Your task to perform on an android device: toggle improve location accuracy Image 0: 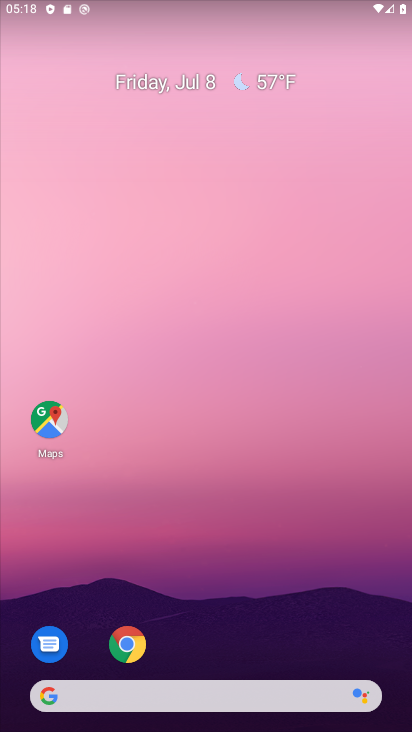
Step 0: drag from (205, 688) to (197, 10)
Your task to perform on an android device: toggle improve location accuracy Image 1: 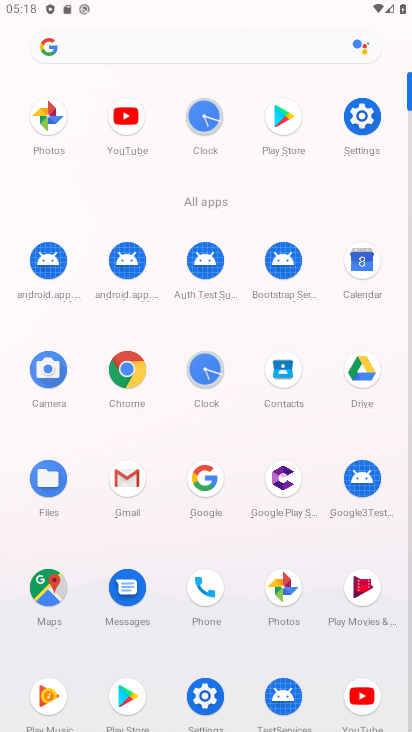
Step 1: click (360, 116)
Your task to perform on an android device: toggle improve location accuracy Image 2: 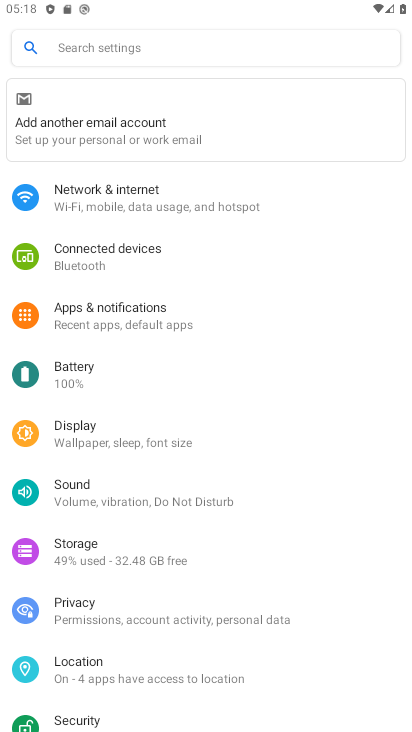
Step 2: click (156, 678)
Your task to perform on an android device: toggle improve location accuracy Image 3: 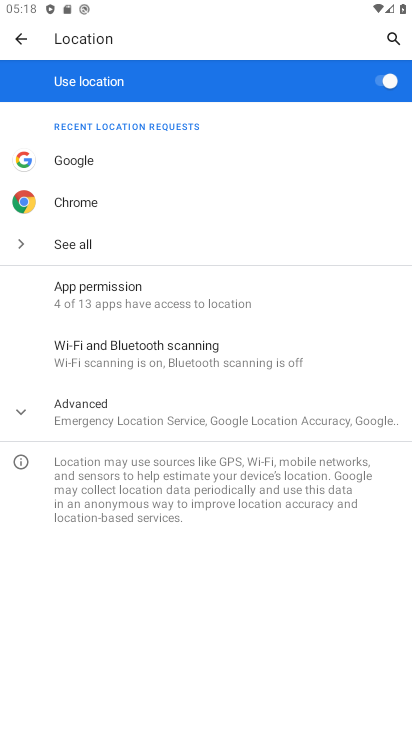
Step 3: click (137, 412)
Your task to perform on an android device: toggle improve location accuracy Image 4: 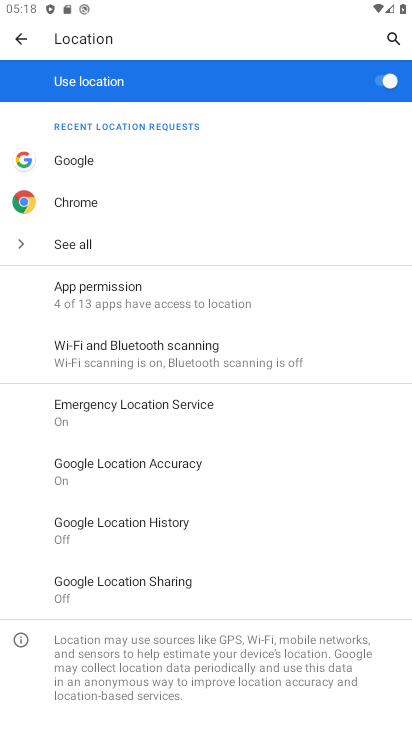
Step 4: click (145, 470)
Your task to perform on an android device: toggle improve location accuracy Image 5: 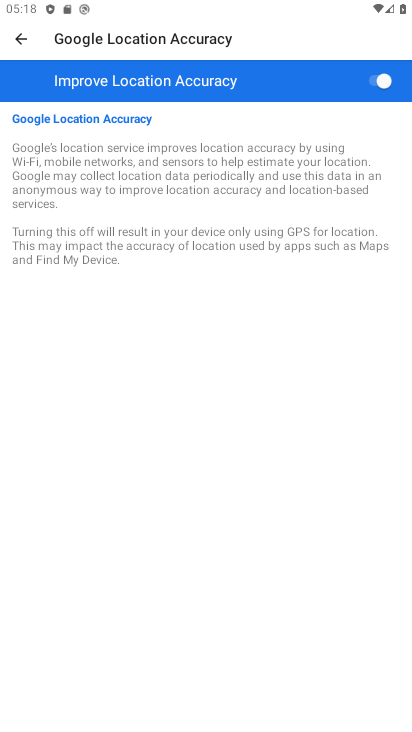
Step 5: click (387, 89)
Your task to perform on an android device: toggle improve location accuracy Image 6: 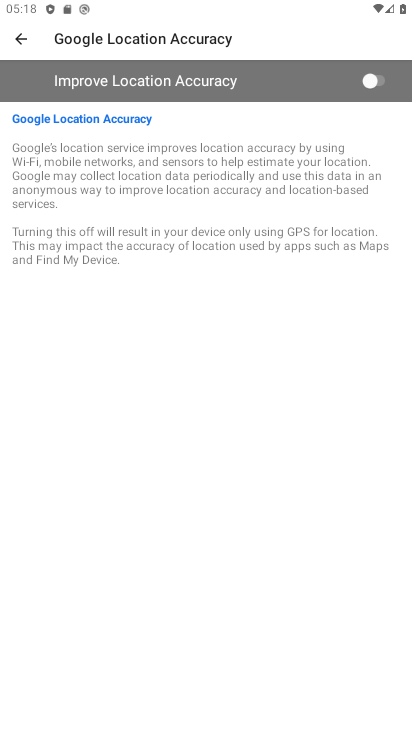
Step 6: task complete